Your task to perform on an android device: turn on airplane mode Image 0: 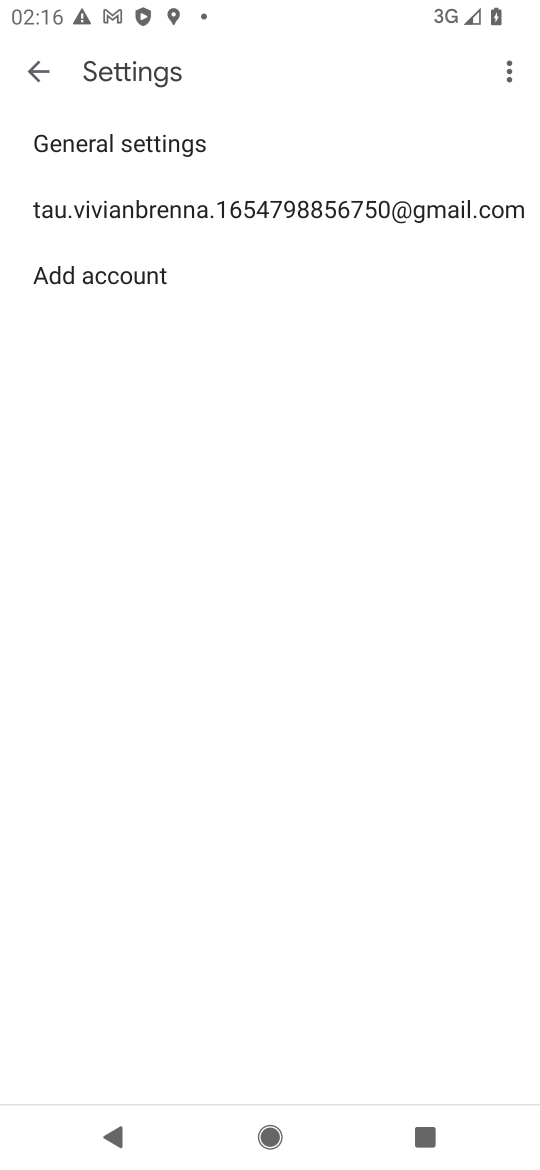
Step 0: press home button
Your task to perform on an android device: turn on airplane mode Image 1: 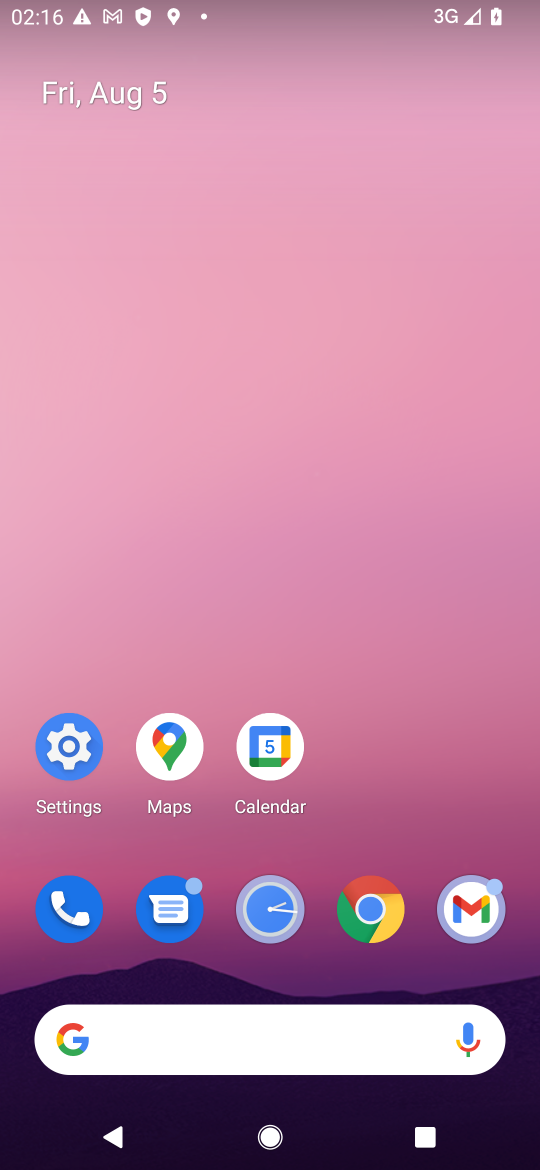
Step 1: click (62, 742)
Your task to perform on an android device: turn on airplane mode Image 2: 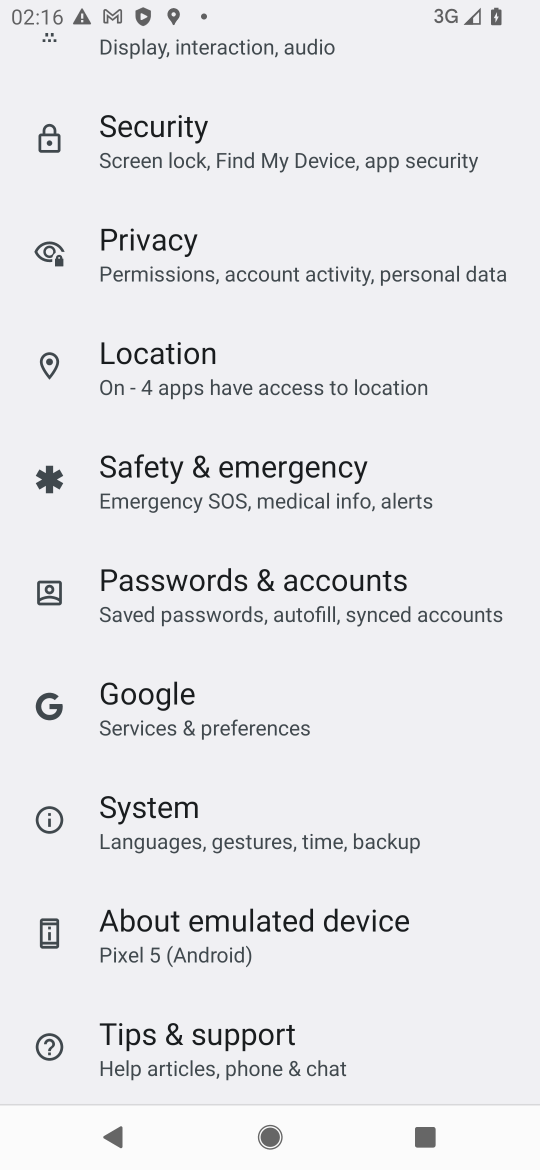
Step 2: drag from (361, 280) to (314, 882)
Your task to perform on an android device: turn on airplane mode Image 3: 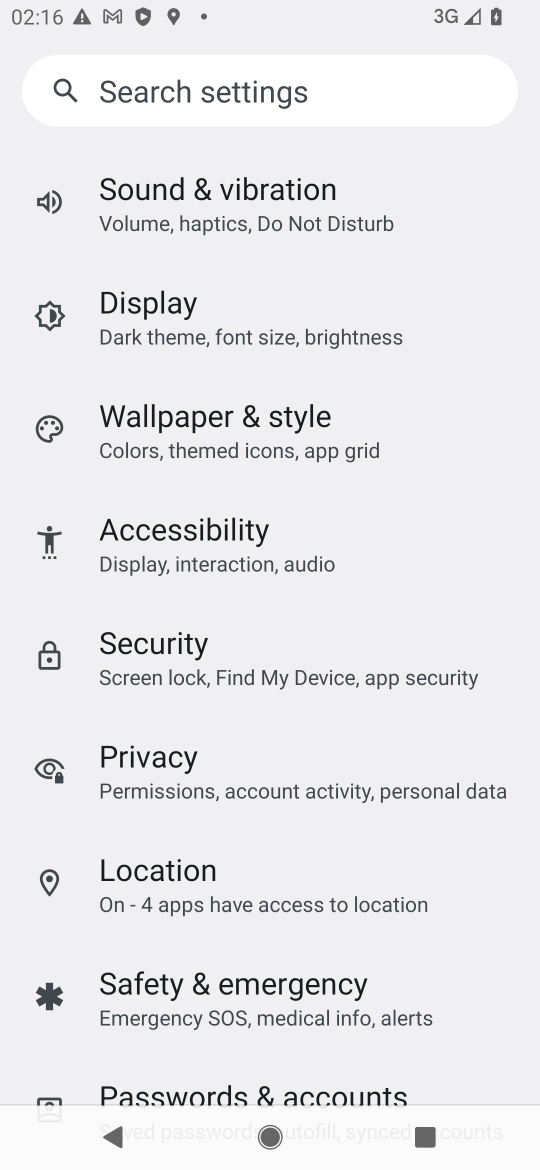
Step 3: drag from (313, 257) to (314, 763)
Your task to perform on an android device: turn on airplane mode Image 4: 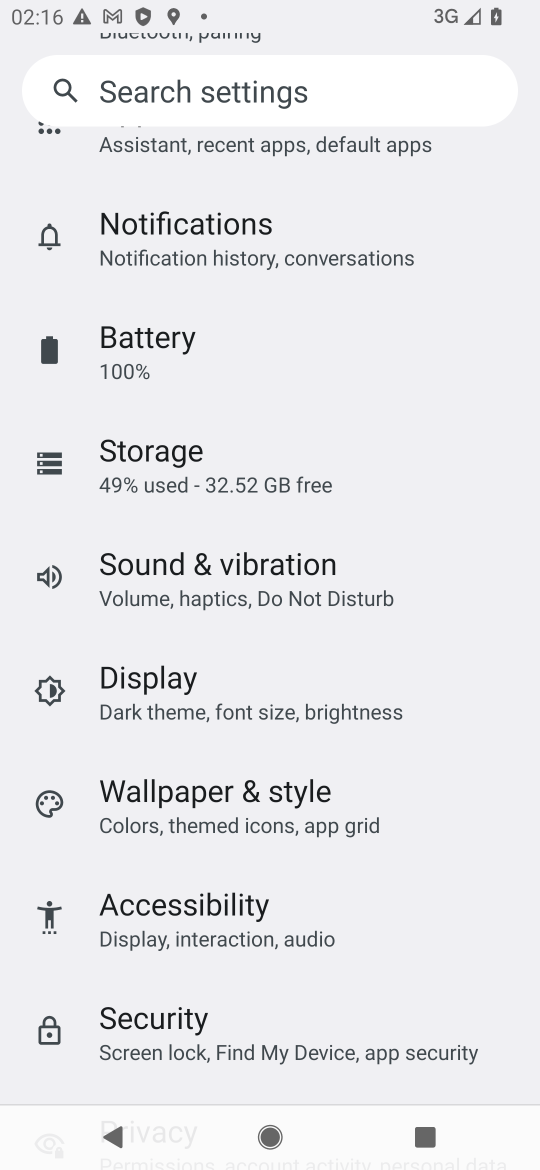
Step 4: drag from (336, 332) to (360, 715)
Your task to perform on an android device: turn on airplane mode Image 5: 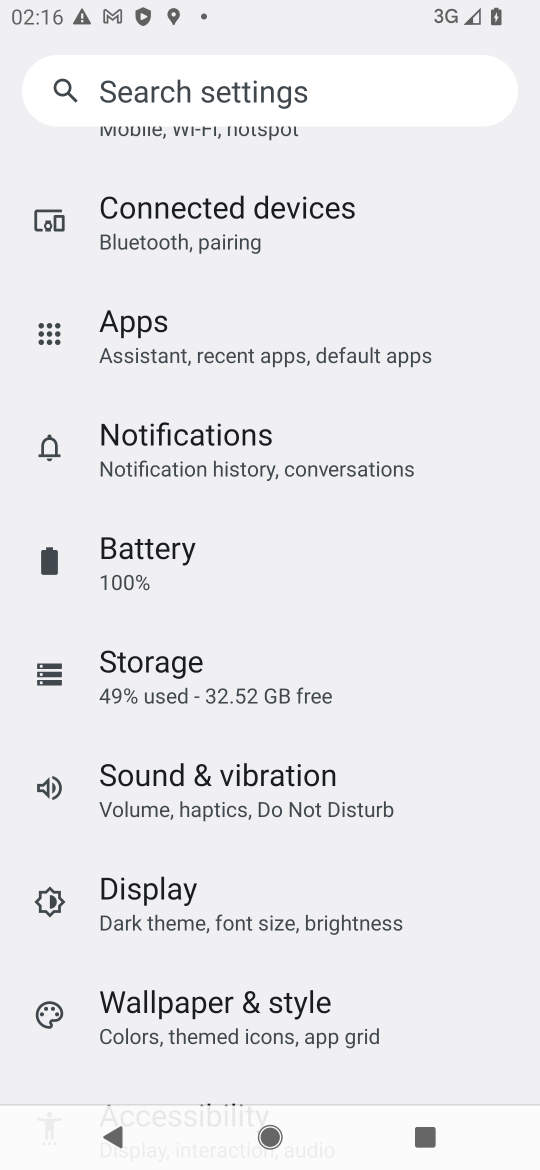
Step 5: drag from (370, 303) to (380, 851)
Your task to perform on an android device: turn on airplane mode Image 6: 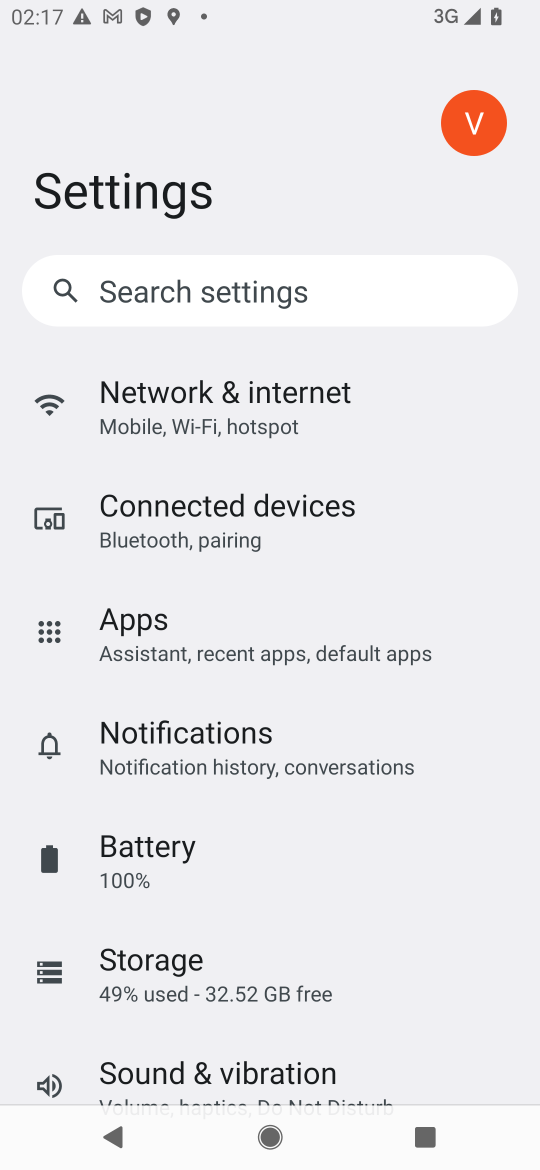
Step 6: click (228, 388)
Your task to perform on an android device: turn on airplane mode Image 7: 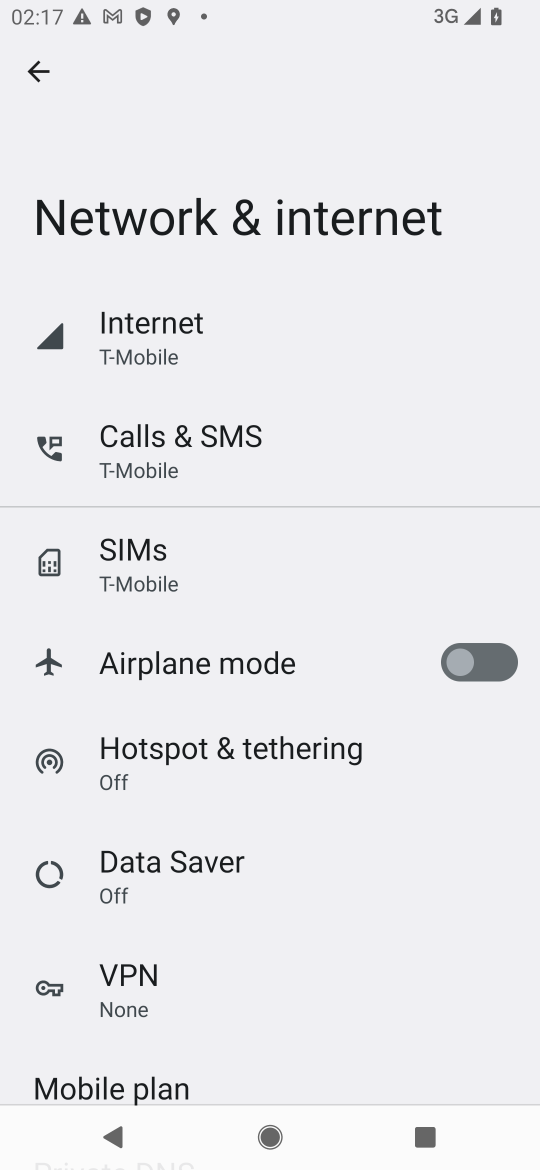
Step 7: click (459, 665)
Your task to perform on an android device: turn on airplane mode Image 8: 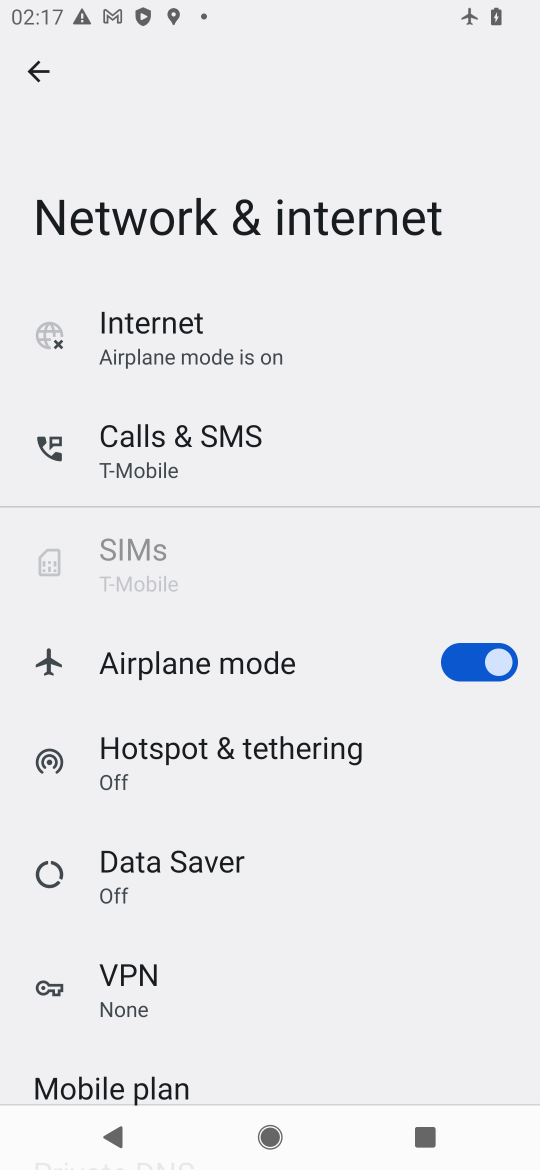
Step 8: task complete